Your task to perform on an android device: Open privacy settings Image 0: 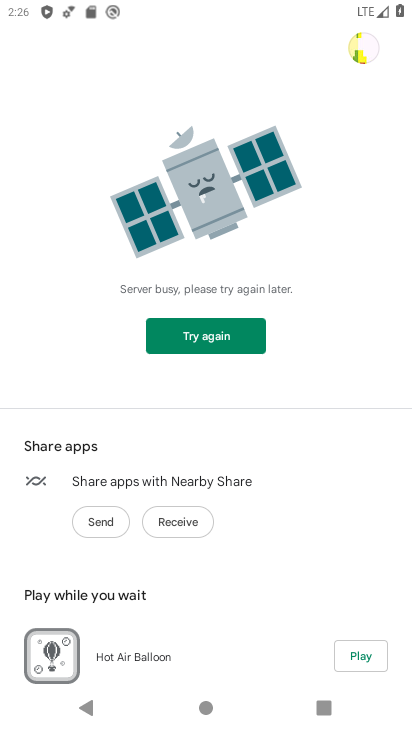
Step 0: press home button
Your task to perform on an android device: Open privacy settings Image 1: 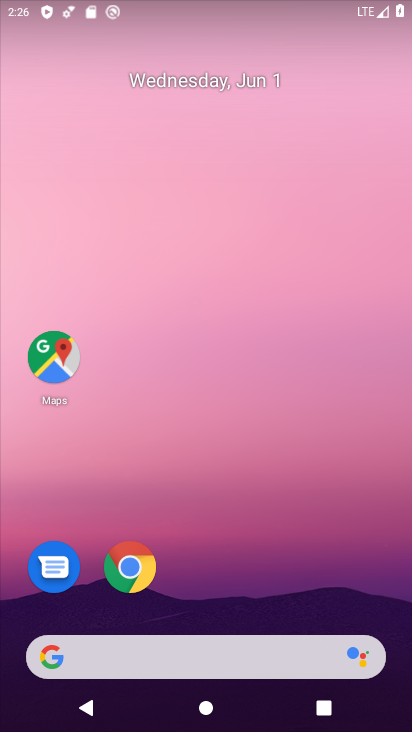
Step 1: drag from (143, 682) to (104, 30)
Your task to perform on an android device: Open privacy settings Image 2: 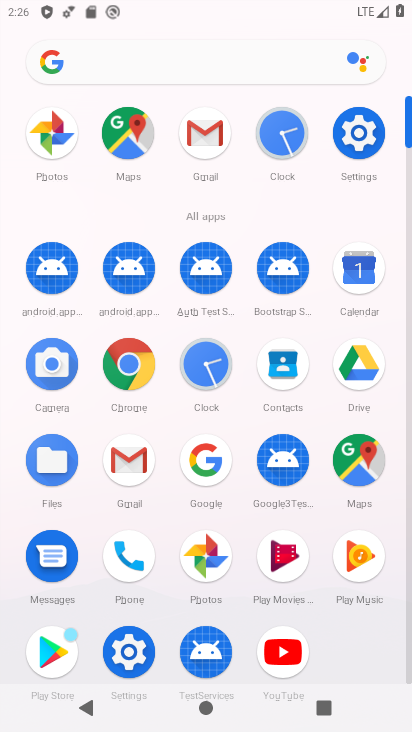
Step 2: click (342, 136)
Your task to perform on an android device: Open privacy settings Image 3: 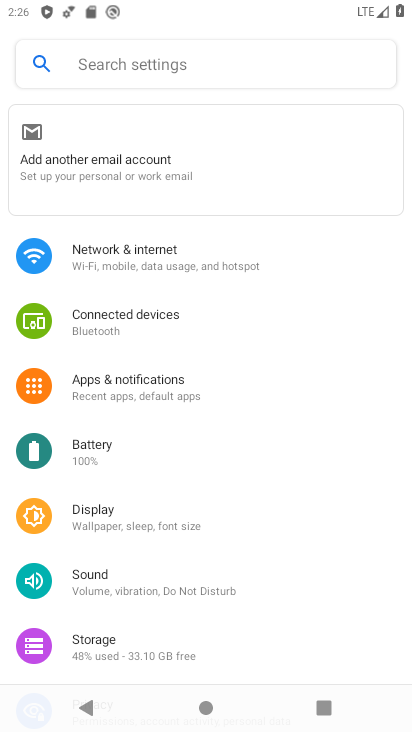
Step 3: drag from (297, 581) to (225, 195)
Your task to perform on an android device: Open privacy settings Image 4: 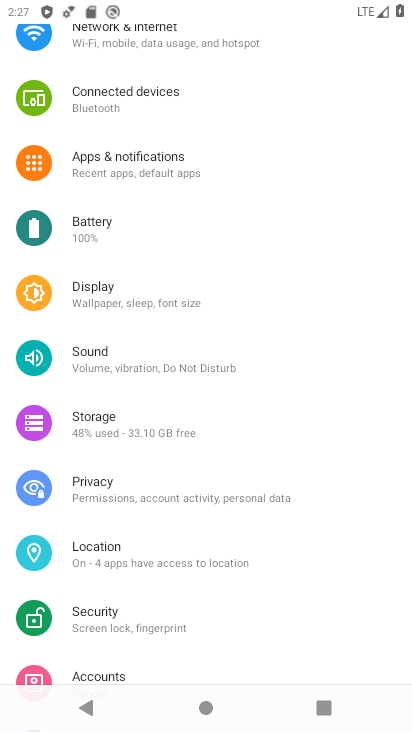
Step 4: click (94, 491)
Your task to perform on an android device: Open privacy settings Image 5: 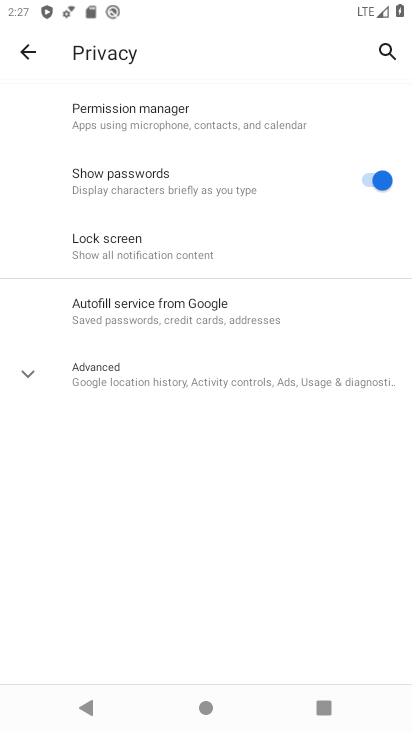
Step 5: task complete